Your task to perform on an android device: What's a good restaurant in Denver? Image 0: 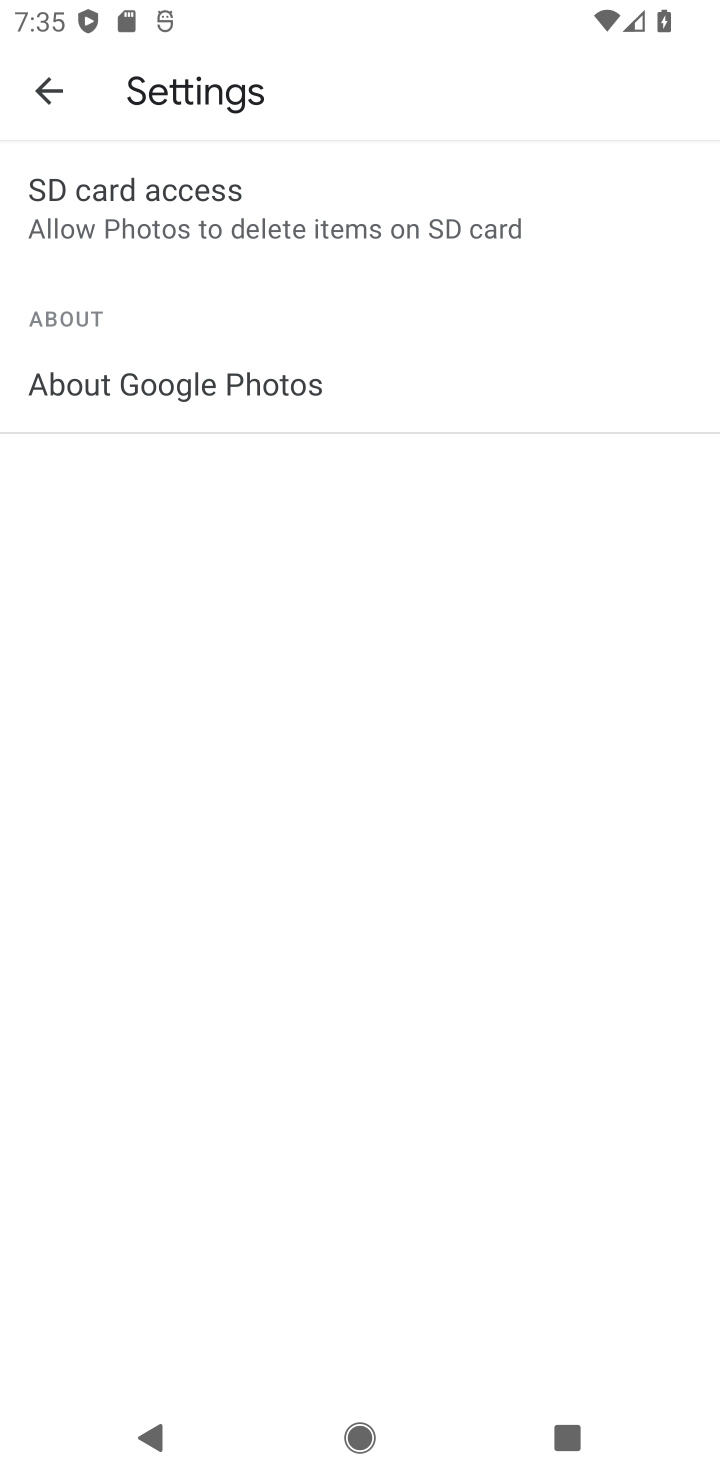
Step 0: press back button
Your task to perform on an android device: What's a good restaurant in Denver? Image 1: 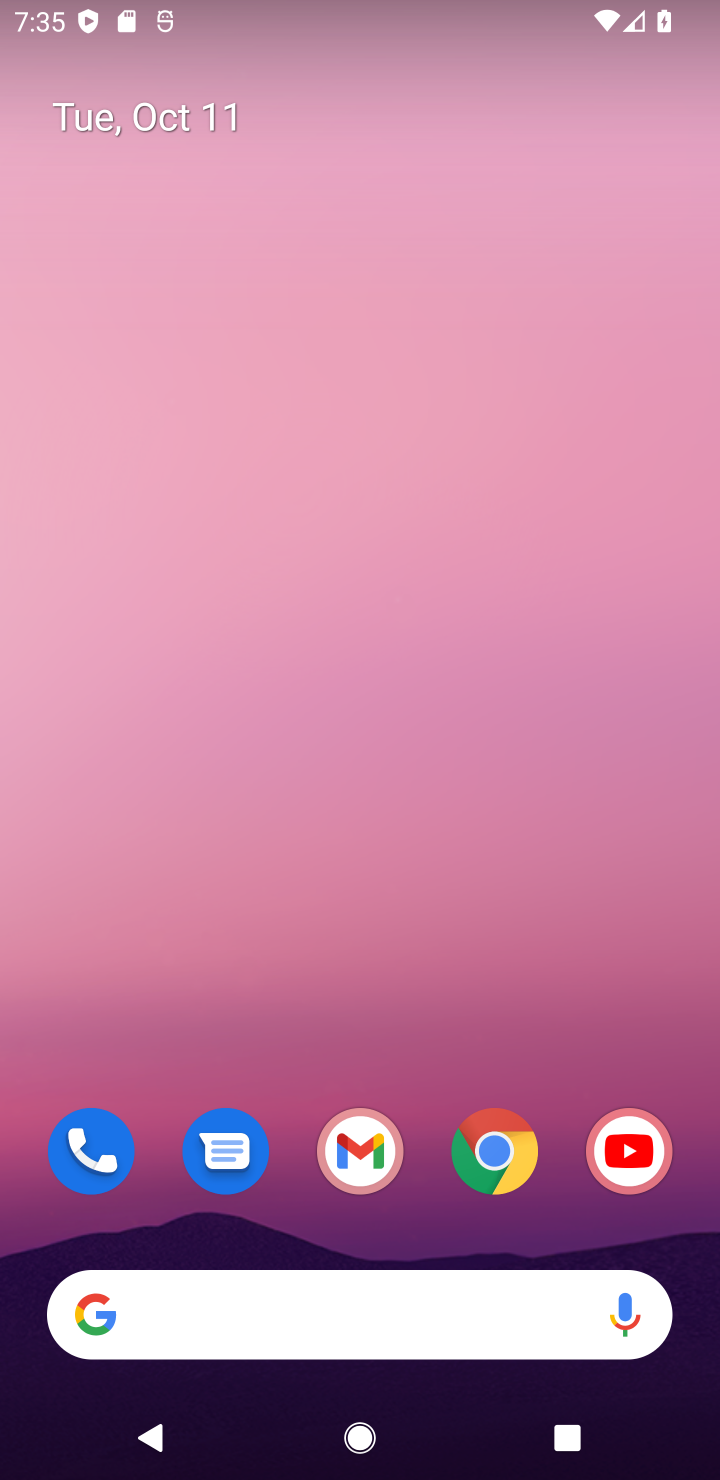
Step 1: click (320, 1312)
Your task to perform on an android device: What's a good restaurant in Denver? Image 2: 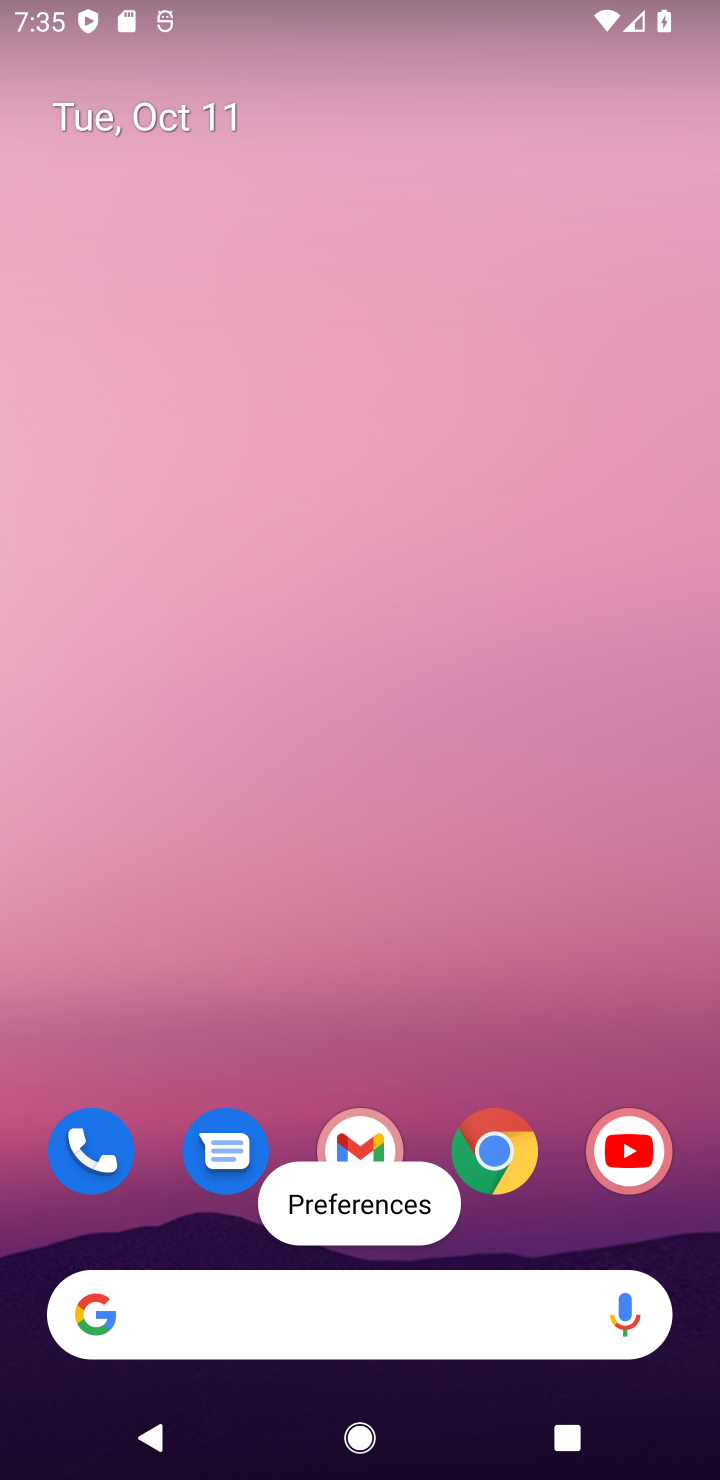
Step 2: type "good restaurant in Denver"
Your task to perform on an android device: What's a good restaurant in Denver? Image 3: 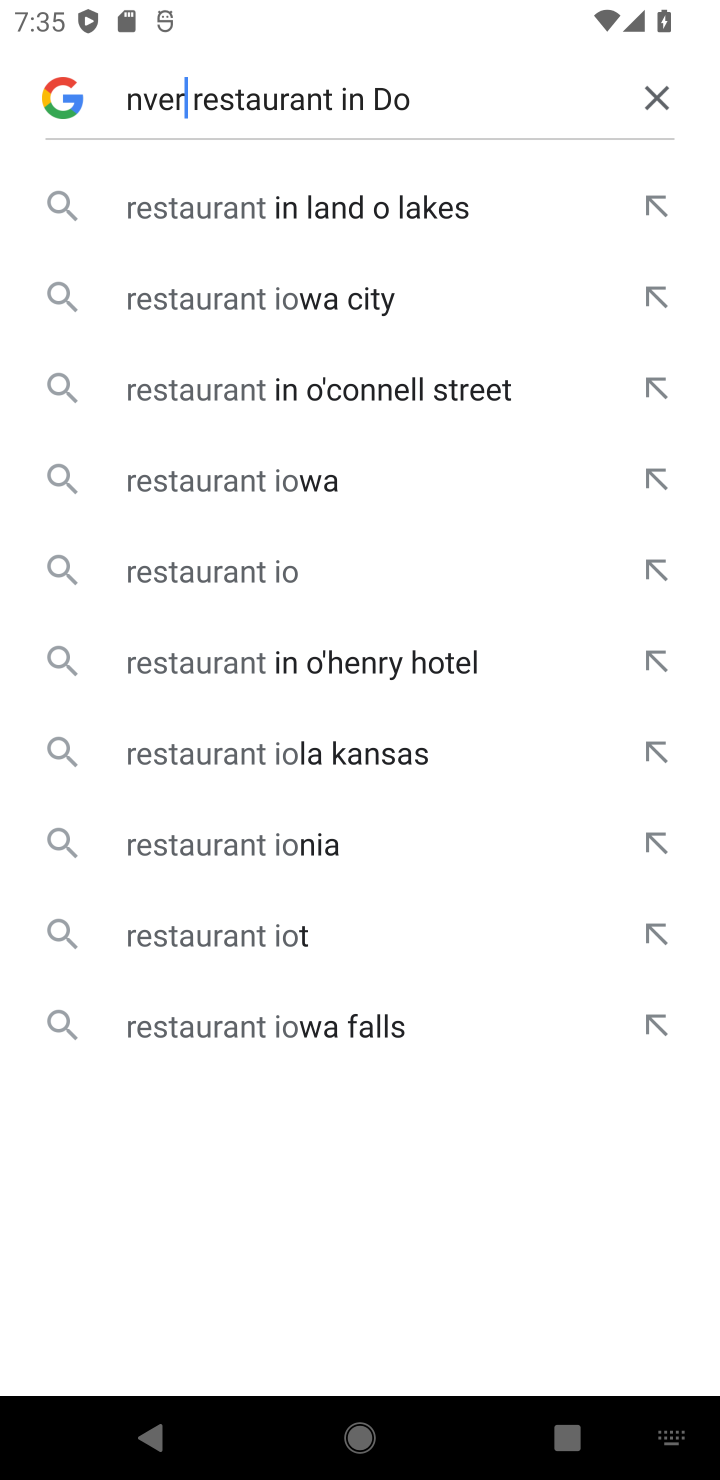
Step 3: type ""
Your task to perform on an android device: What's a good restaurant in Denver? Image 4: 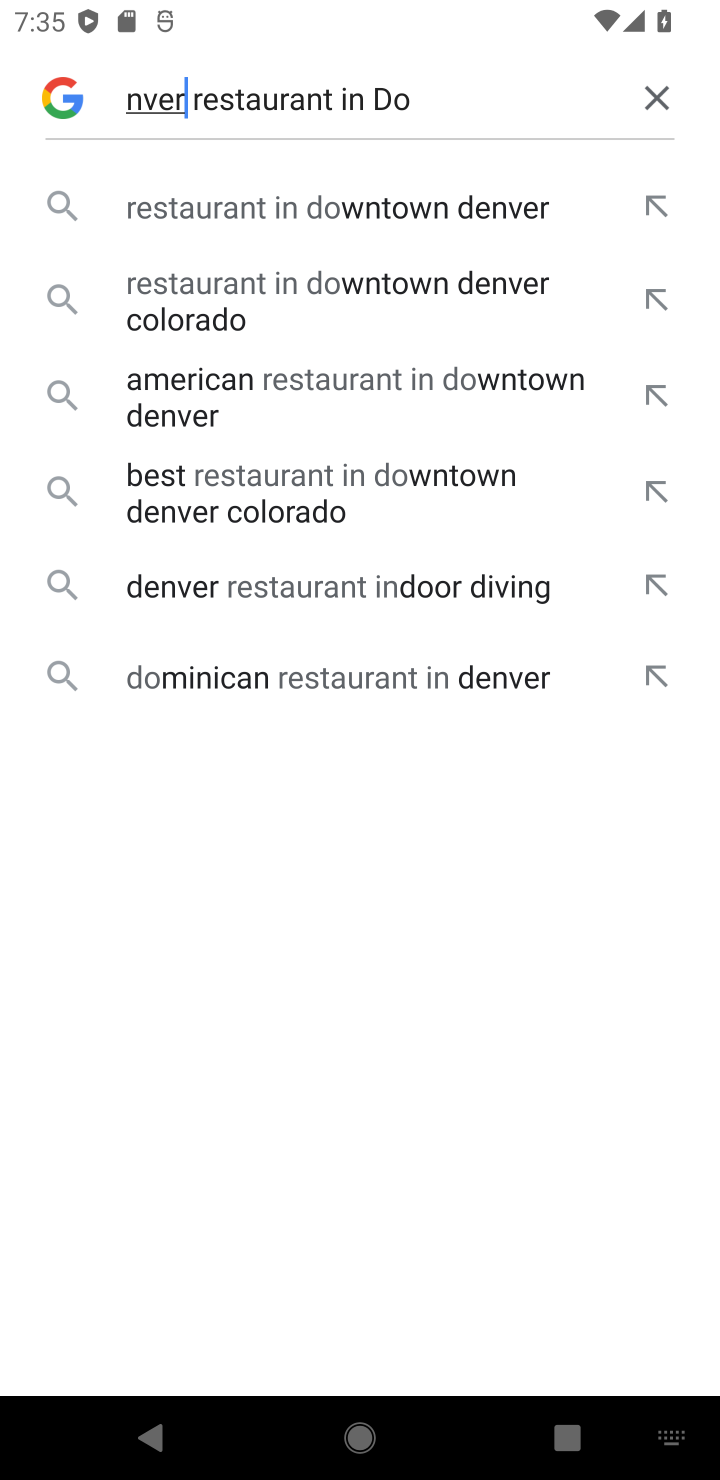
Step 4: press enter
Your task to perform on an android device: What's a good restaurant in Denver? Image 5: 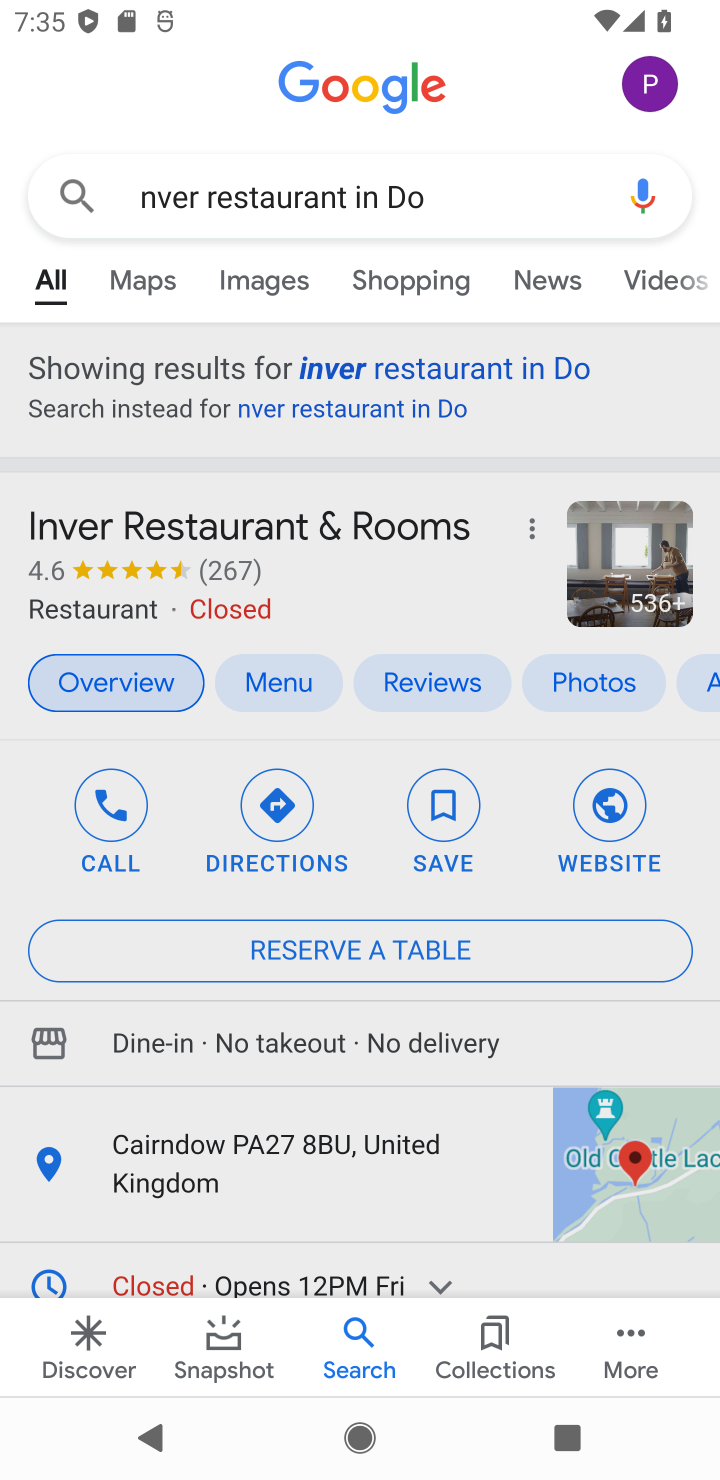
Step 5: click (489, 167)
Your task to perform on an android device: What's a good restaurant in Denver? Image 6: 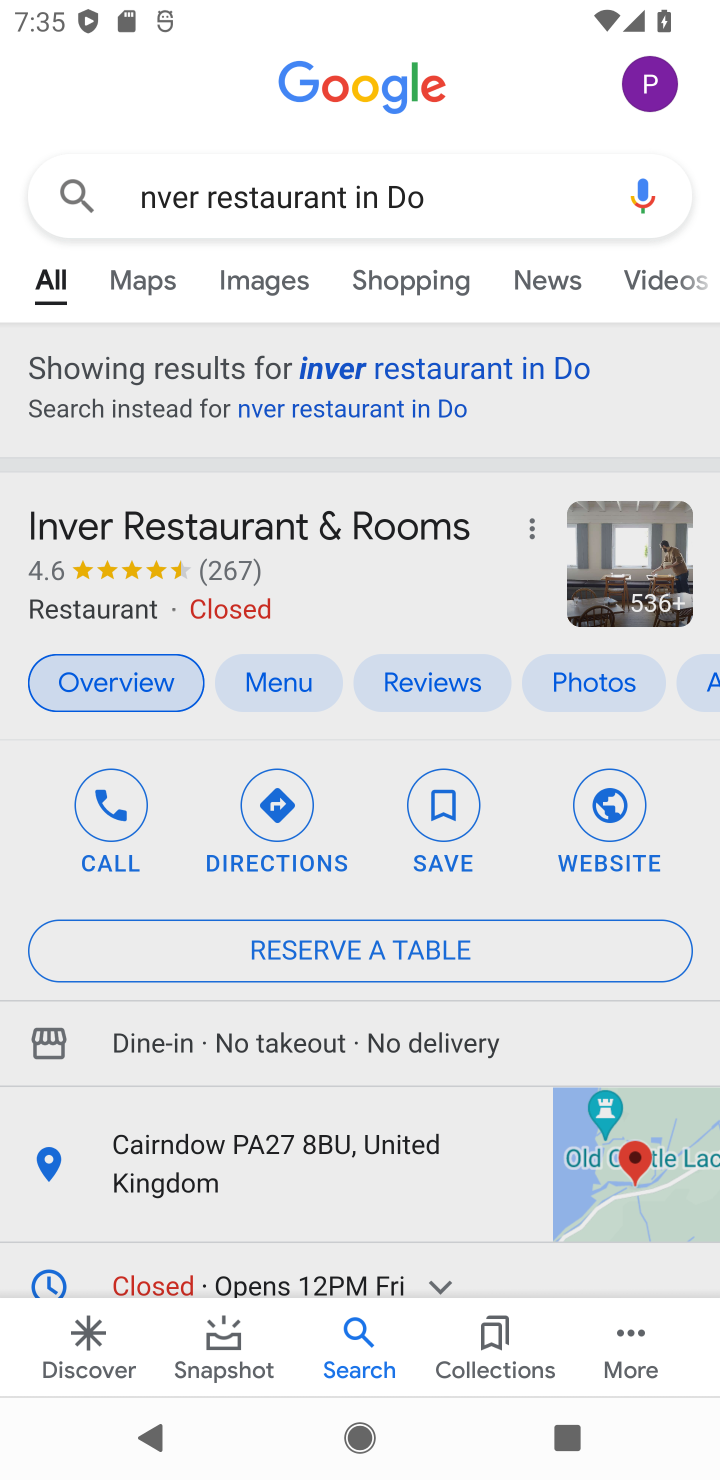
Step 6: click (479, 195)
Your task to perform on an android device: What's a good restaurant in Denver? Image 7: 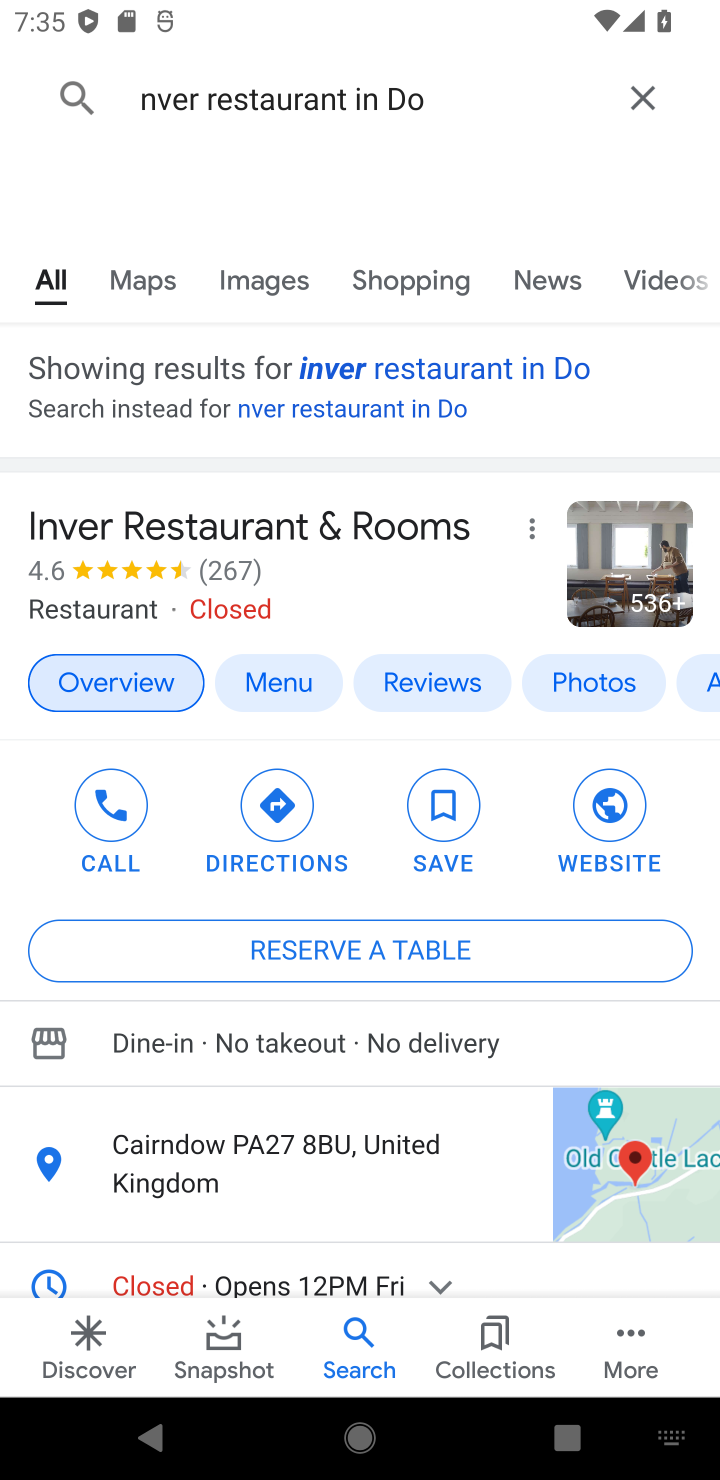
Step 7: click (479, 199)
Your task to perform on an android device: What's a good restaurant in Denver? Image 8: 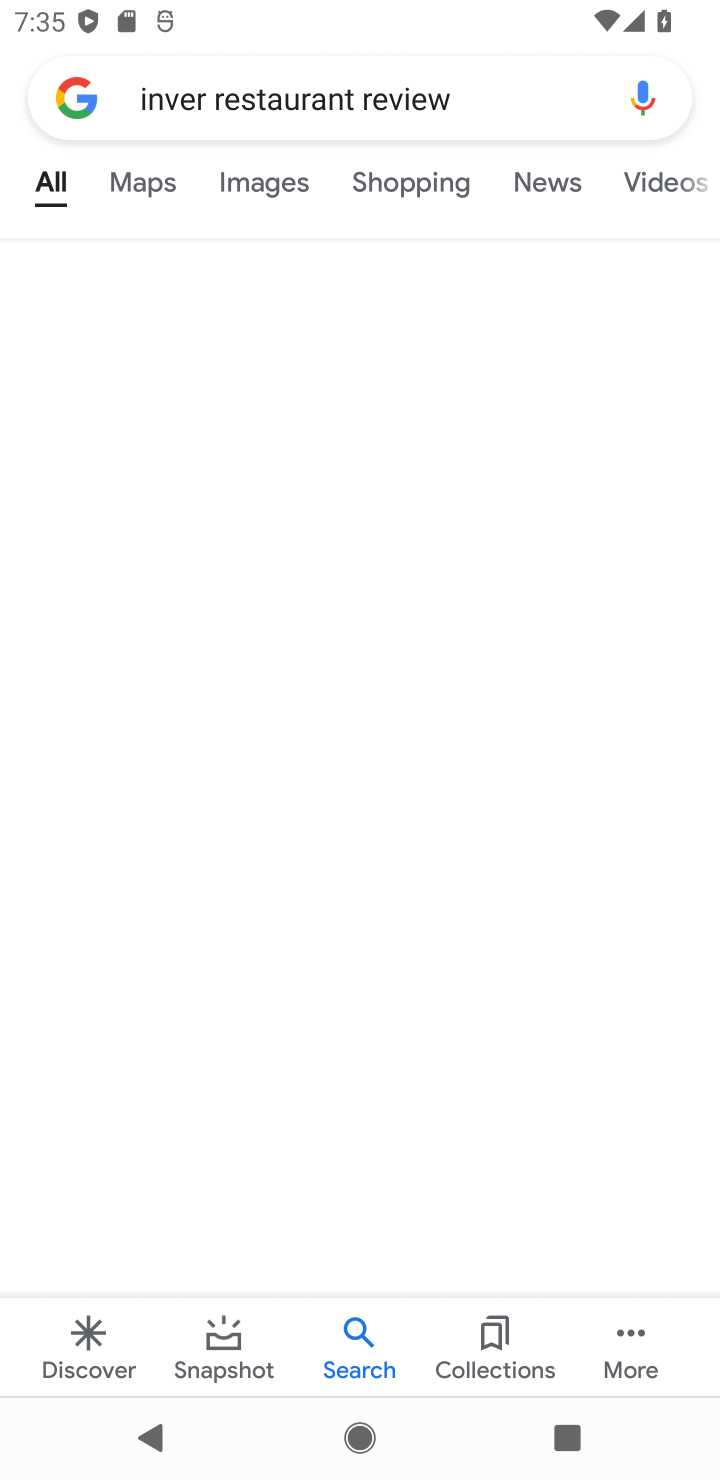
Step 8: click (652, 108)
Your task to perform on an android device: What's a good restaurant in Denver? Image 9: 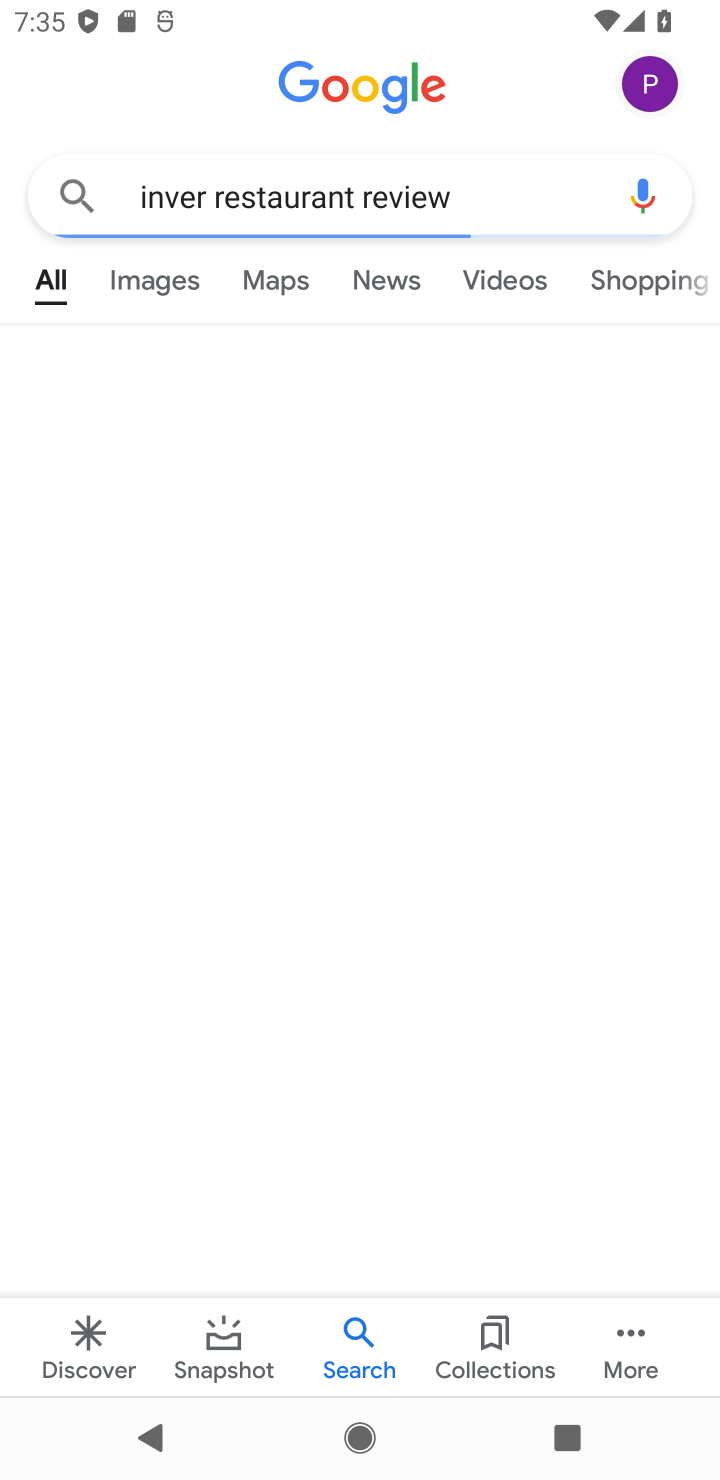
Step 9: click (447, 183)
Your task to perform on an android device: What's a good restaurant in Denver? Image 10: 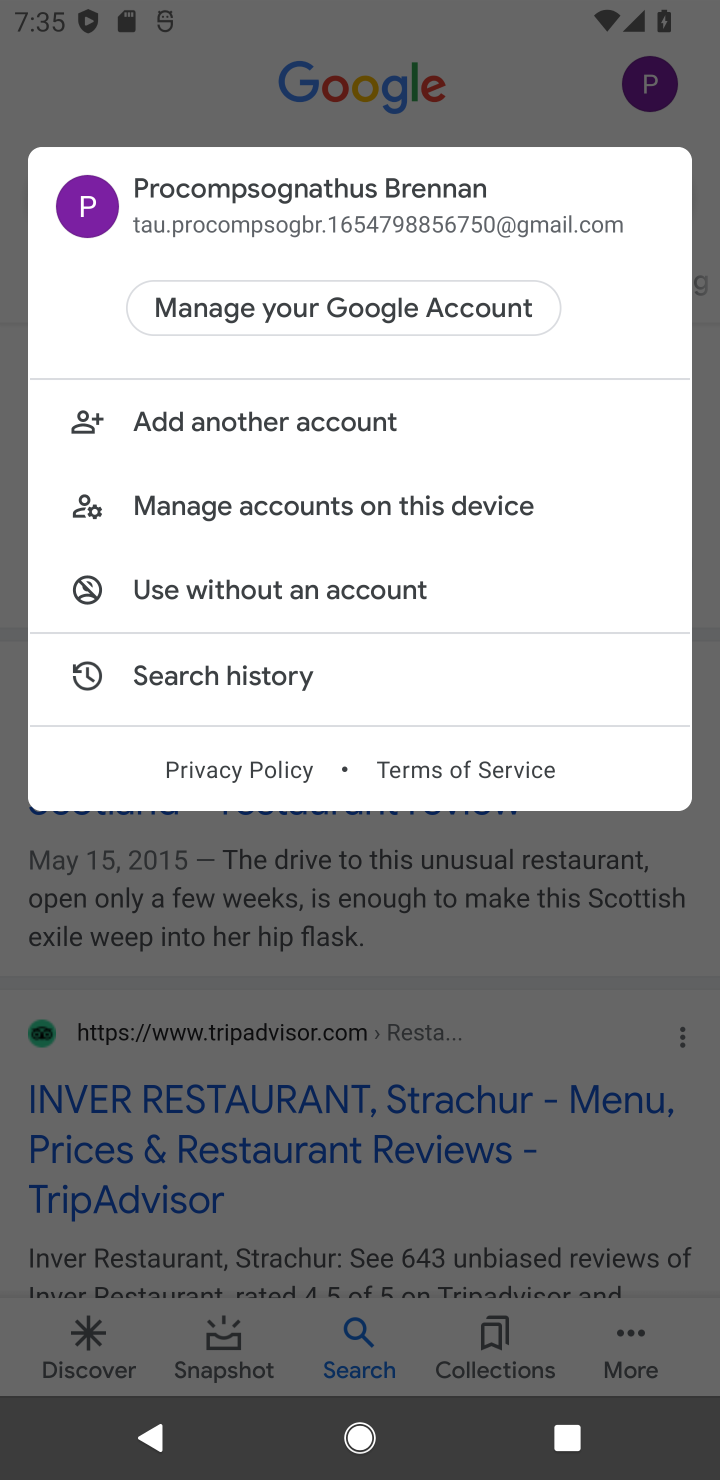
Step 10: click (506, 111)
Your task to perform on an android device: What's a good restaurant in Denver? Image 11: 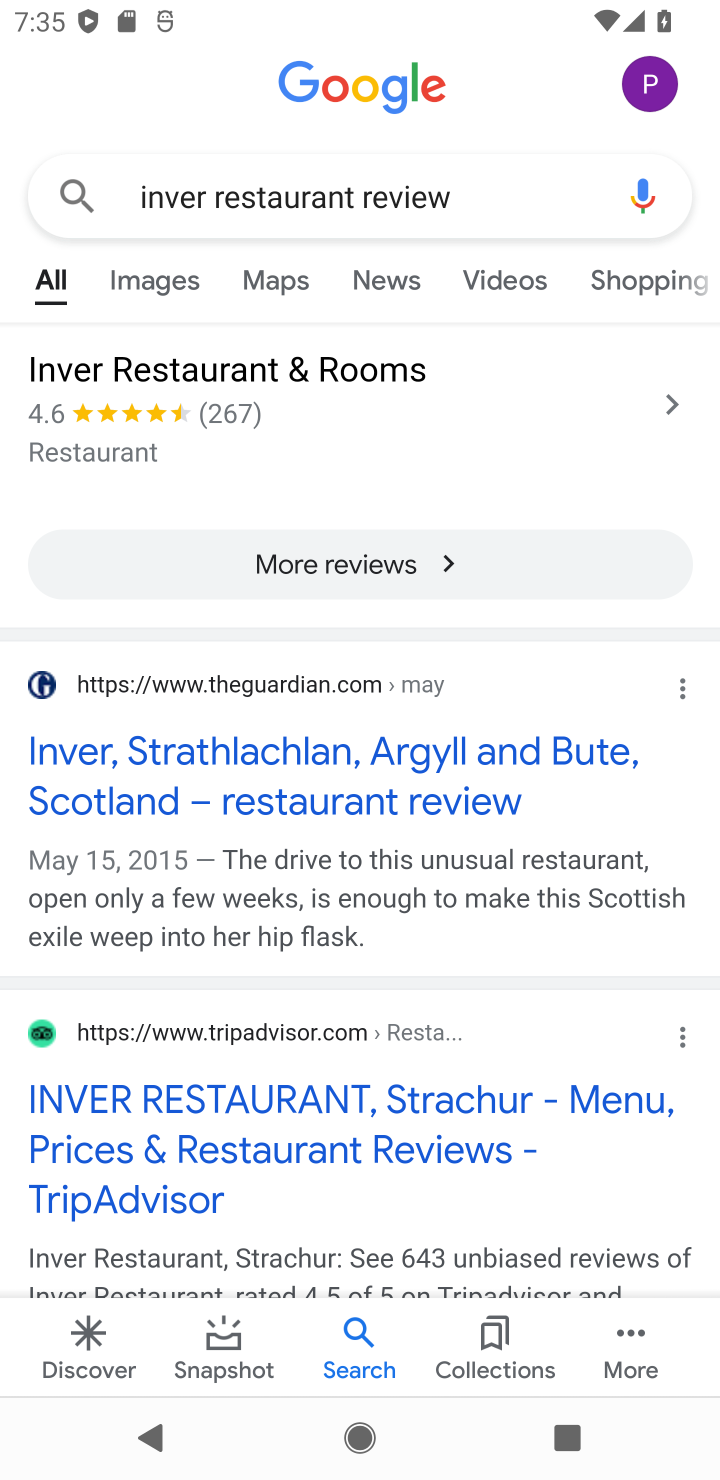
Step 11: click (418, 211)
Your task to perform on an android device: What's a good restaurant in Denver? Image 12: 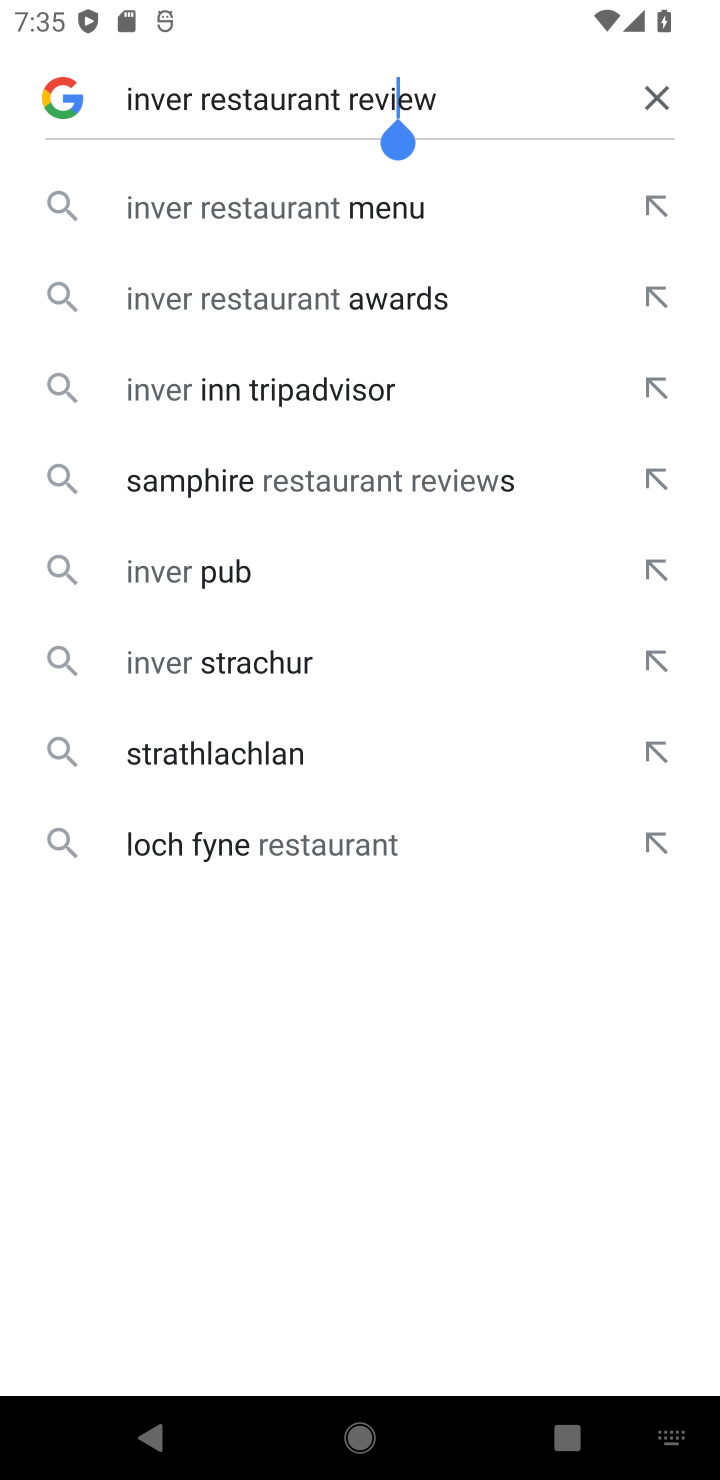
Step 12: click (649, 95)
Your task to perform on an android device: What's a good restaurant in Denver? Image 13: 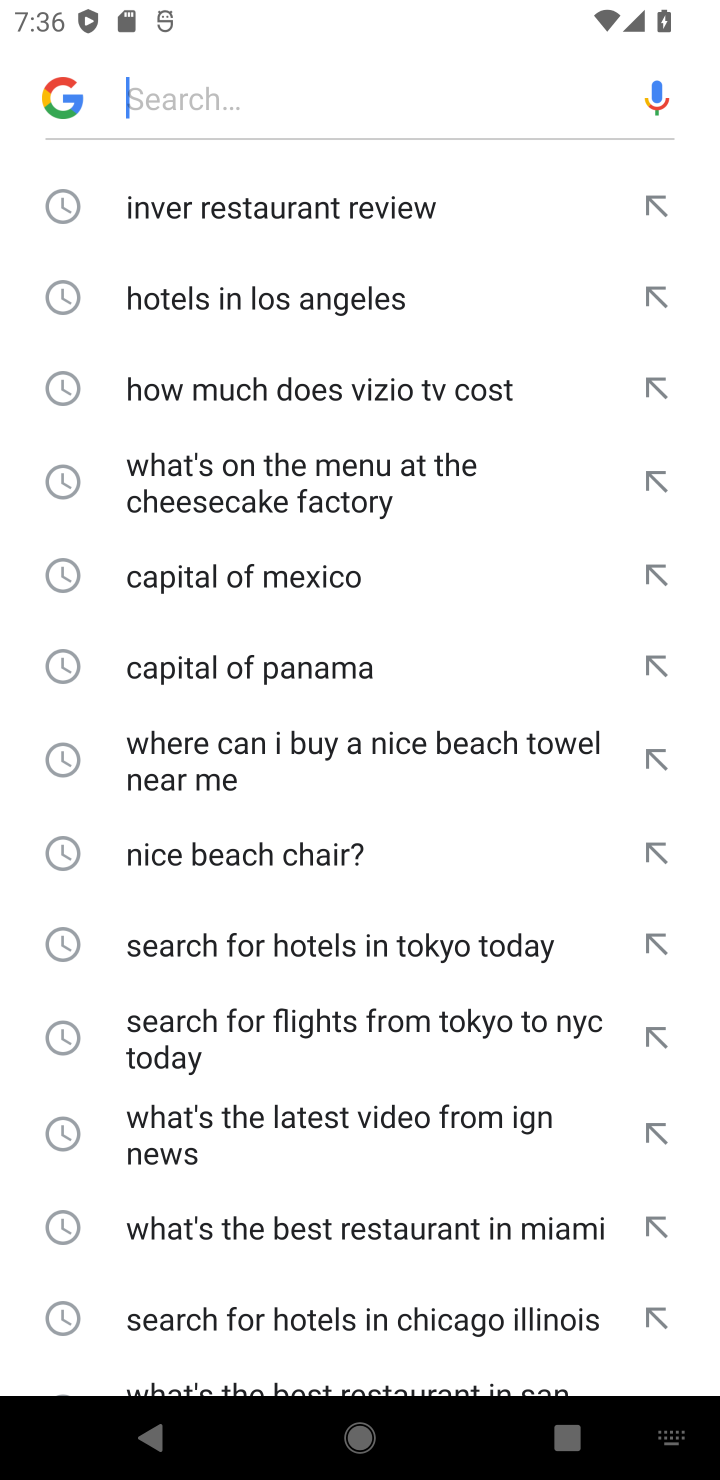
Step 13: type " good restaurant in Denver?"
Your task to perform on an android device: What's a good restaurant in Denver? Image 14: 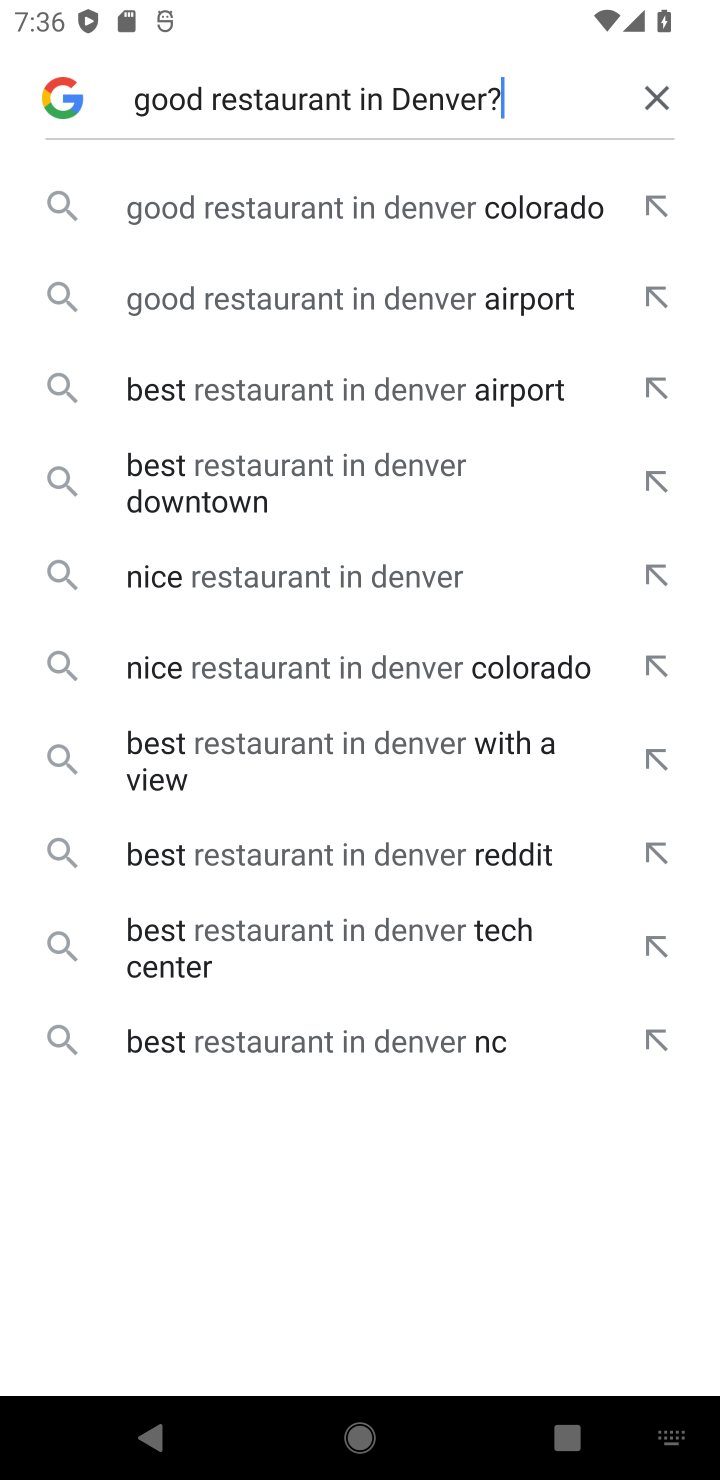
Step 14: press enter
Your task to perform on an android device: What's a good restaurant in Denver? Image 15: 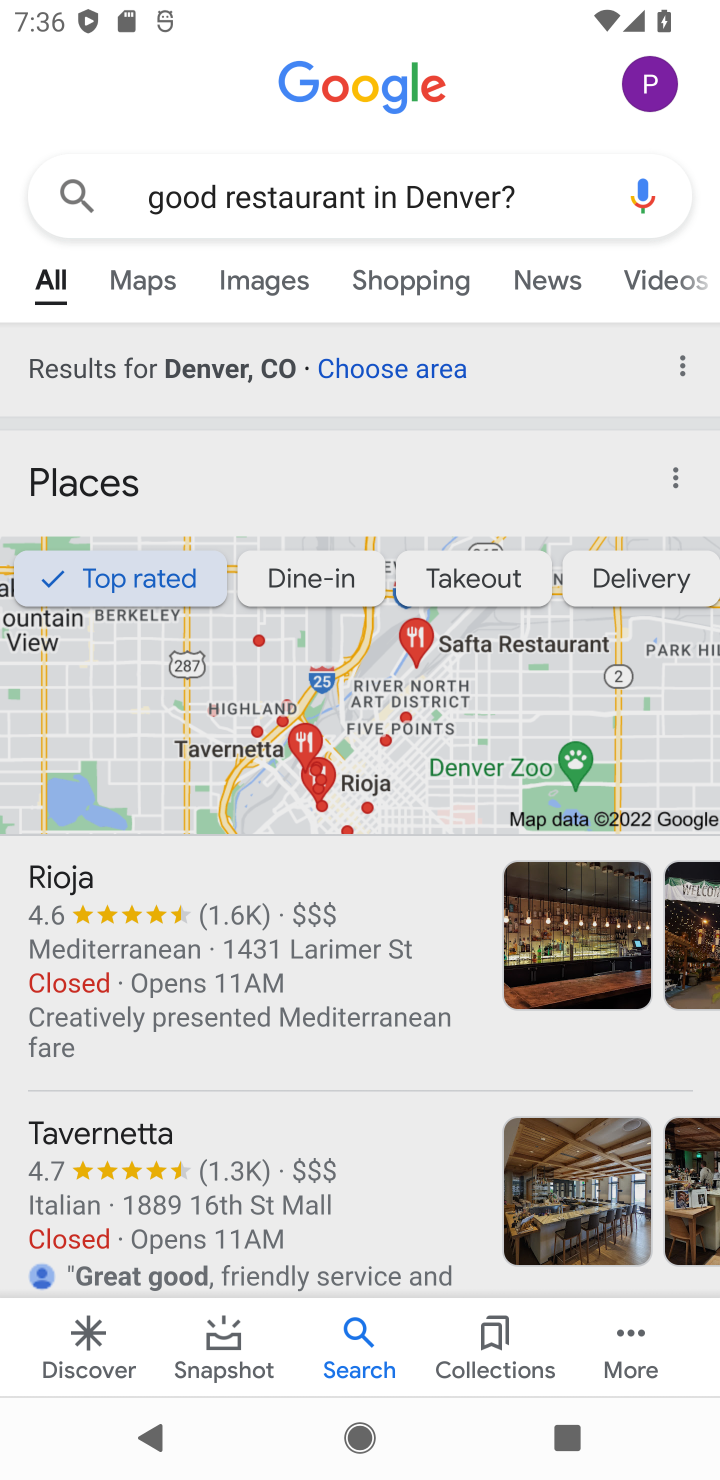
Step 15: drag from (369, 1189) to (464, 421)
Your task to perform on an android device: What's a good restaurant in Denver? Image 16: 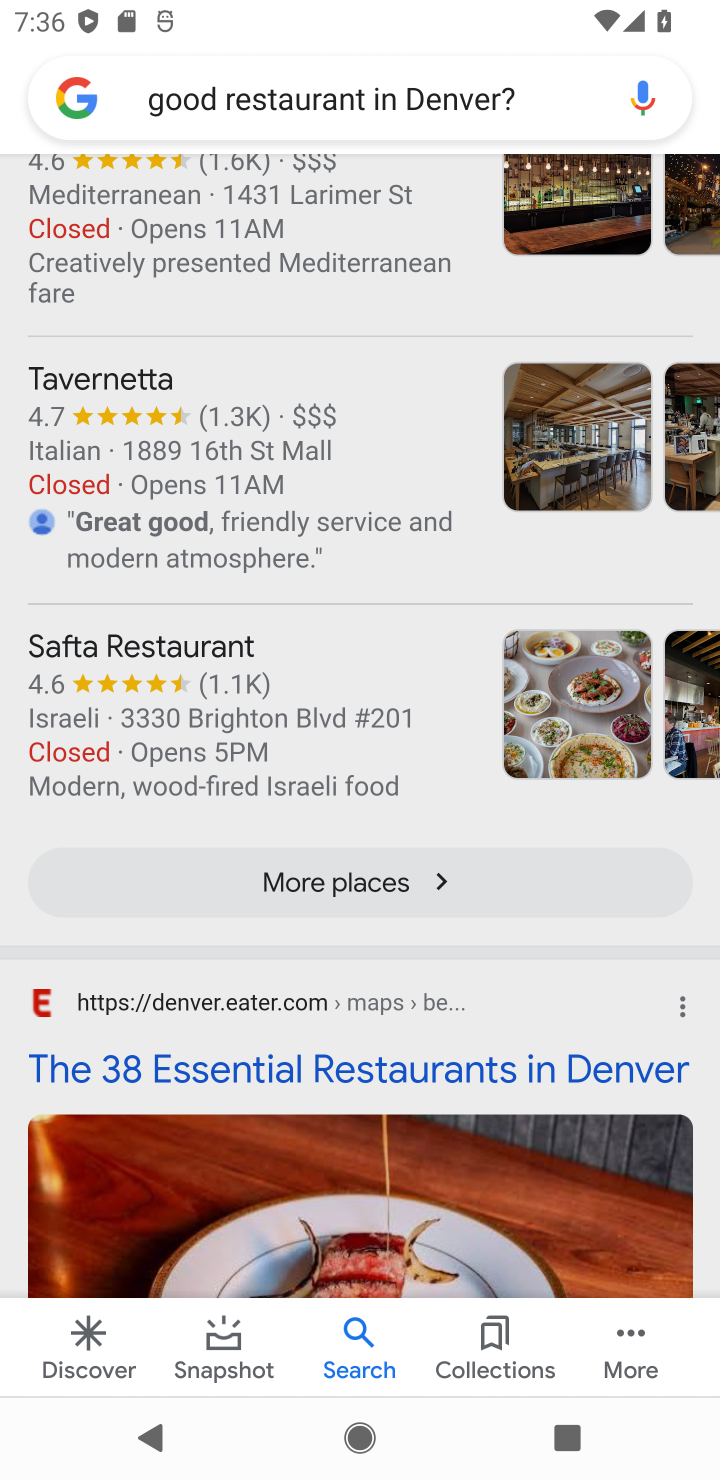
Step 16: click (349, 884)
Your task to perform on an android device: What's a good restaurant in Denver? Image 17: 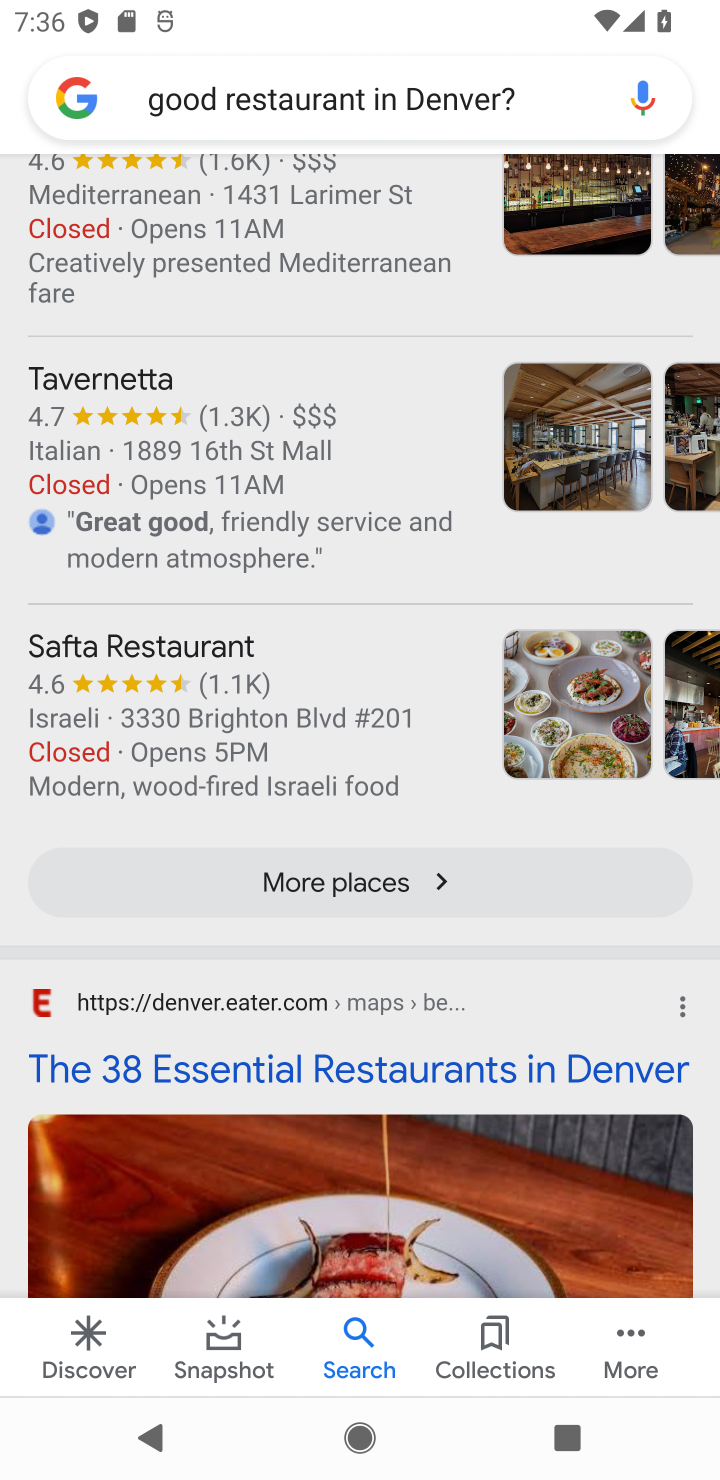
Step 17: click (351, 879)
Your task to perform on an android device: What's a good restaurant in Denver? Image 18: 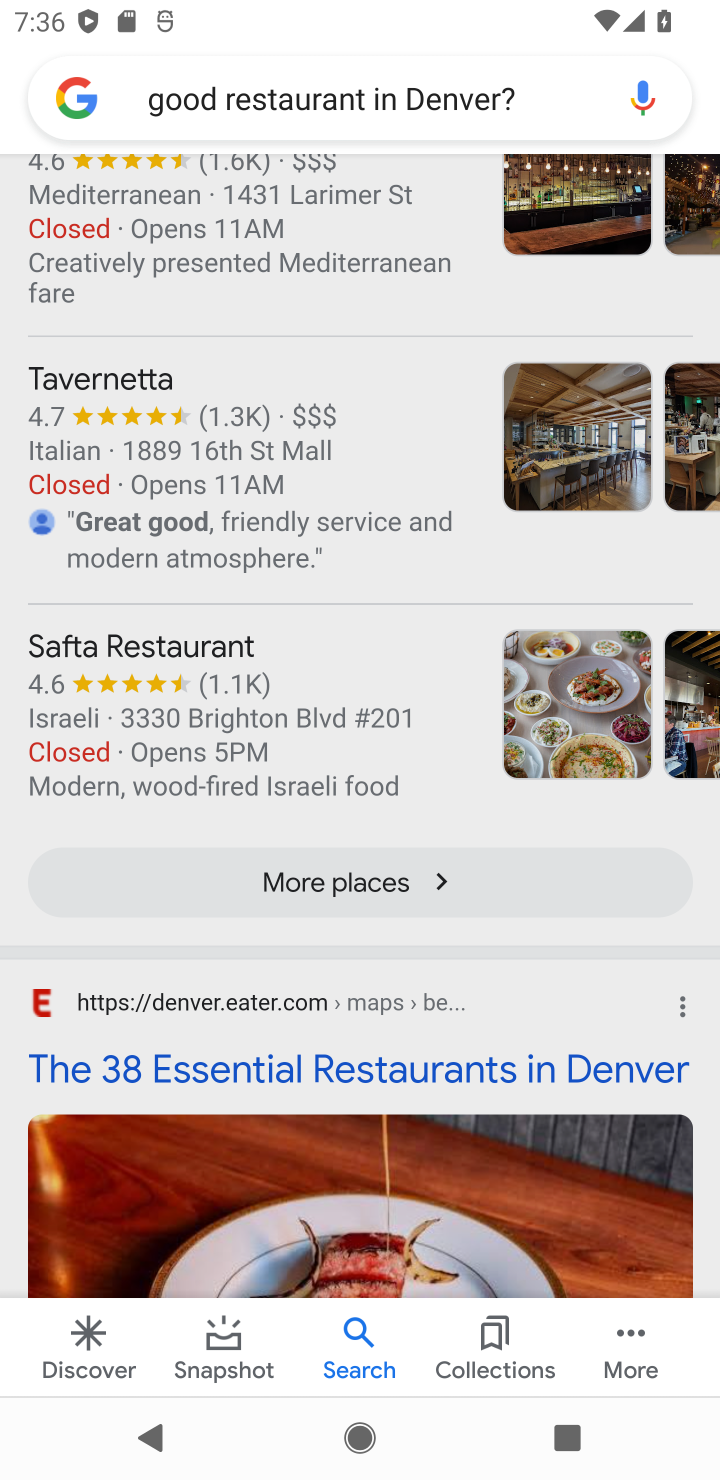
Step 18: click (351, 873)
Your task to perform on an android device: What's a good restaurant in Denver? Image 19: 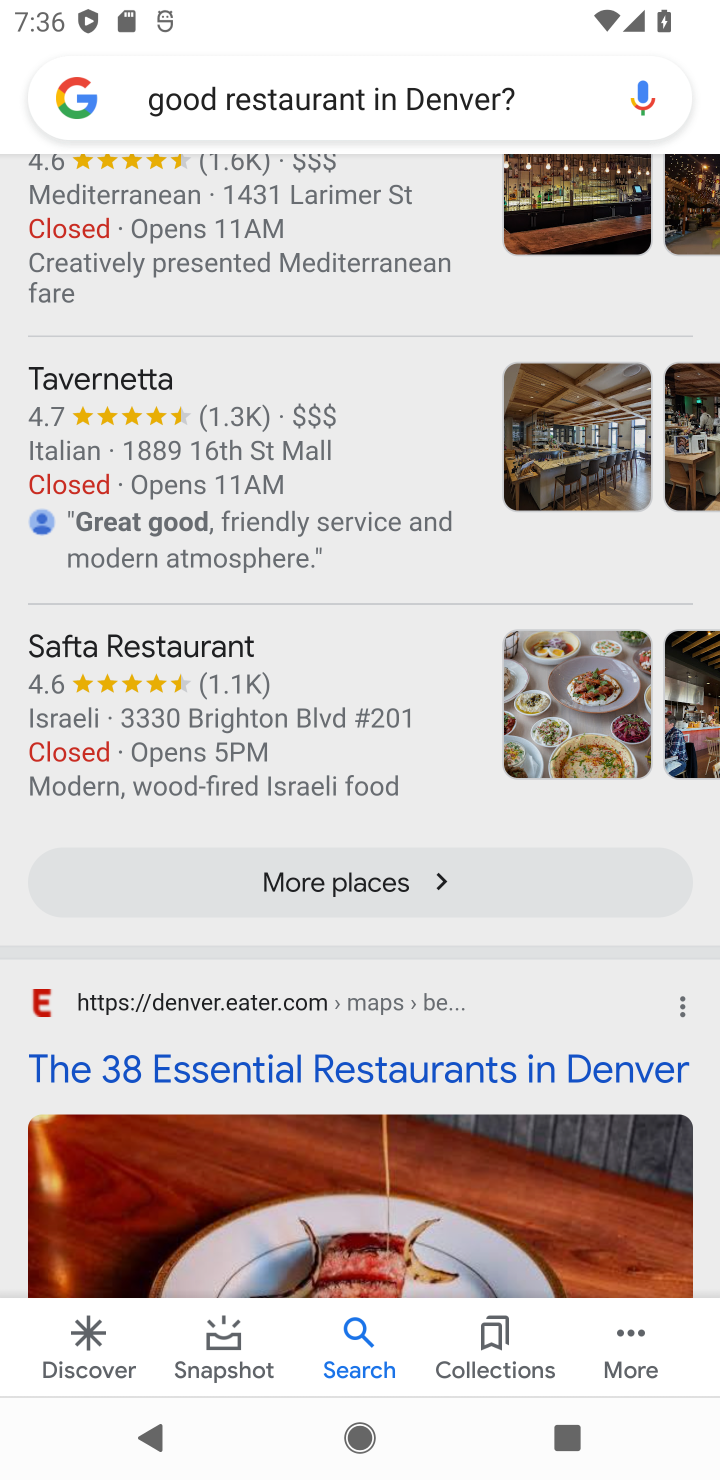
Step 19: task complete